Your task to perform on an android device: change the clock display to show seconds Image 0: 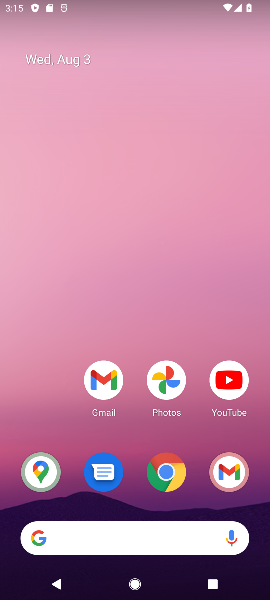
Step 0: drag from (211, 480) to (73, 37)
Your task to perform on an android device: change the clock display to show seconds Image 1: 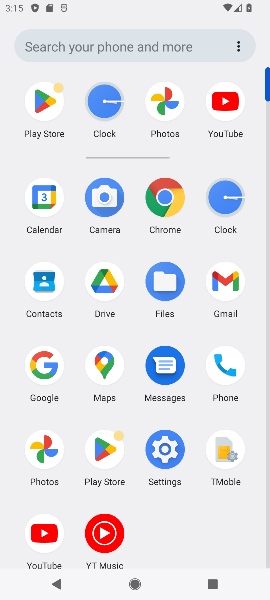
Step 1: click (222, 204)
Your task to perform on an android device: change the clock display to show seconds Image 2: 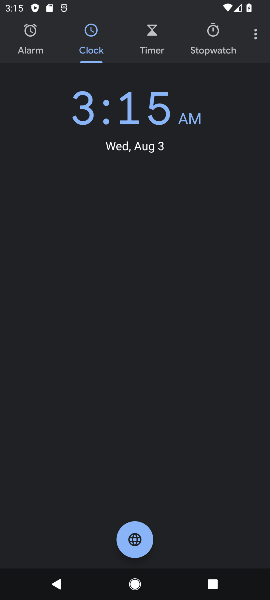
Step 2: click (248, 31)
Your task to perform on an android device: change the clock display to show seconds Image 3: 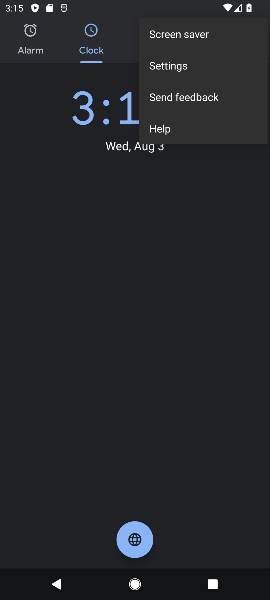
Step 3: click (151, 62)
Your task to perform on an android device: change the clock display to show seconds Image 4: 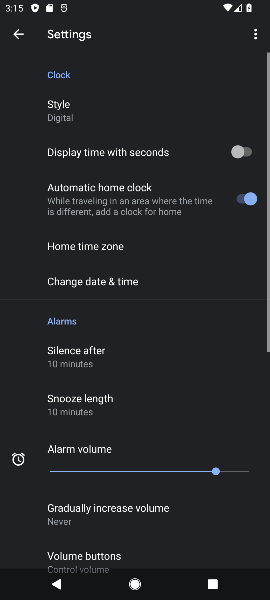
Step 4: click (195, 144)
Your task to perform on an android device: change the clock display to show seconds Image 5: 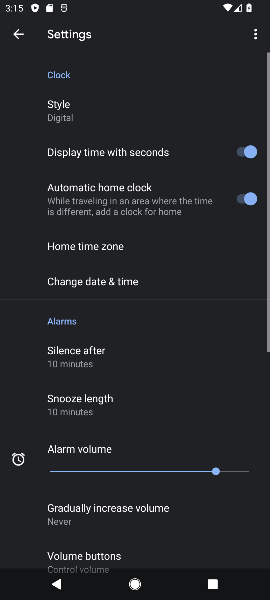
Step 5: task complete